Your task to perform on an android device: What is the recent news? Image 0: 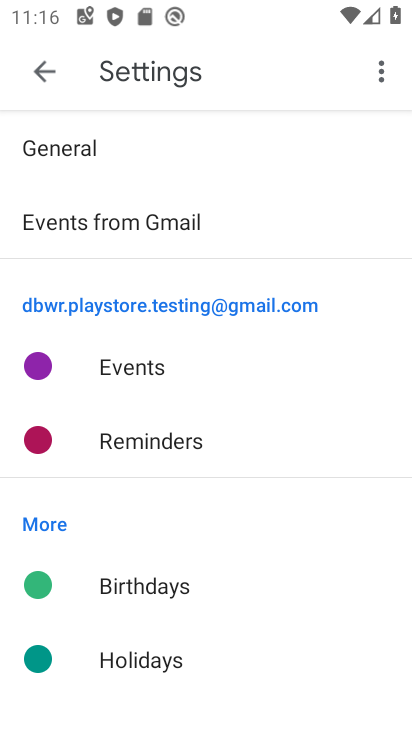
Step 0: press home button
Your task to perform on an android device: What is the recent news? Image 1: 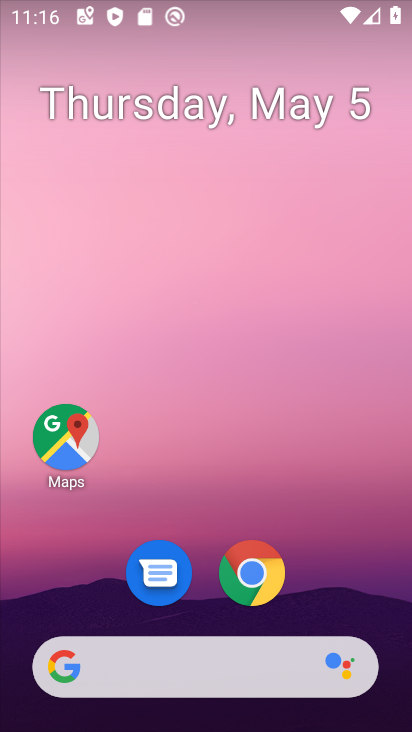
Step 1: drag from (308, 594) to (328, 263)
Your task to perform on an android device: What is the recent news? Image 2: 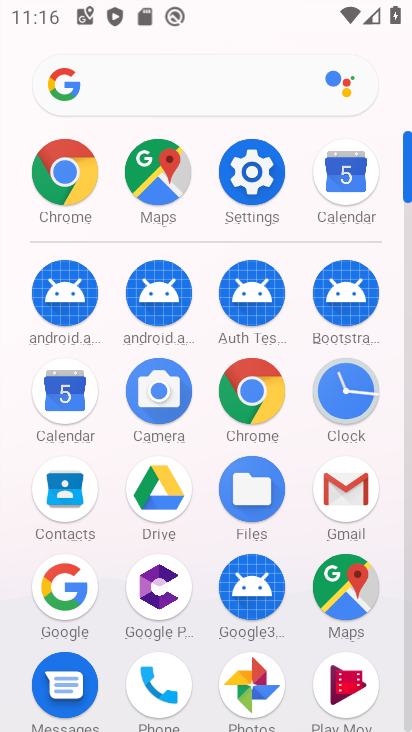
Step 2: click (247, 378)
Your task to perform on an android device: What is the recent news? Image 3: 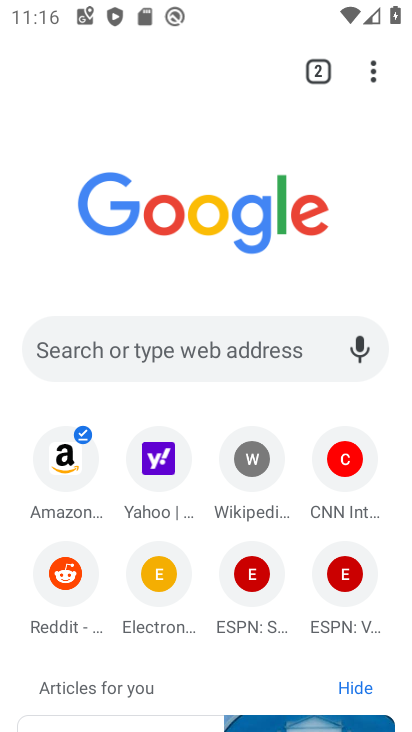
Step 3: click (165, 336)
Your task to perform on an android device: What is the recent news? Image 4: 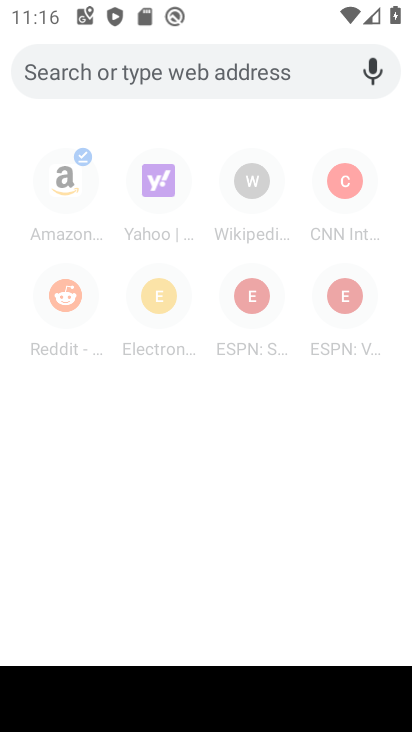
Step 4: type "recent news"
Your task to perform on an android device: What is the recent news? Image 5: 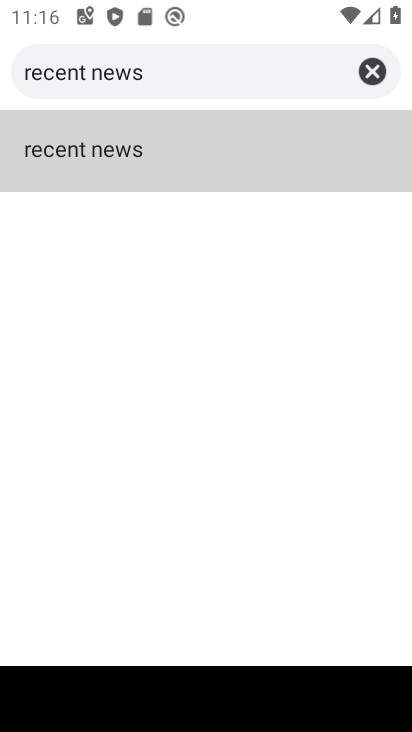
Step 5: click (111, 156)
Your task to perform on an android device: What is the recent news? Image 6: 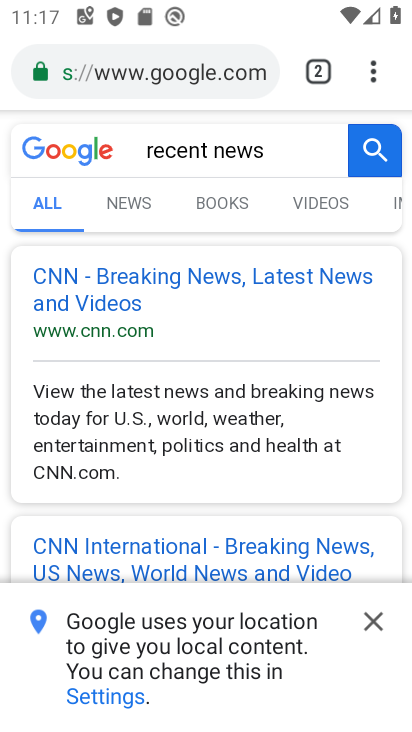
Step 6: task complete